Your task to perform on an android device: turn off location Image 0: 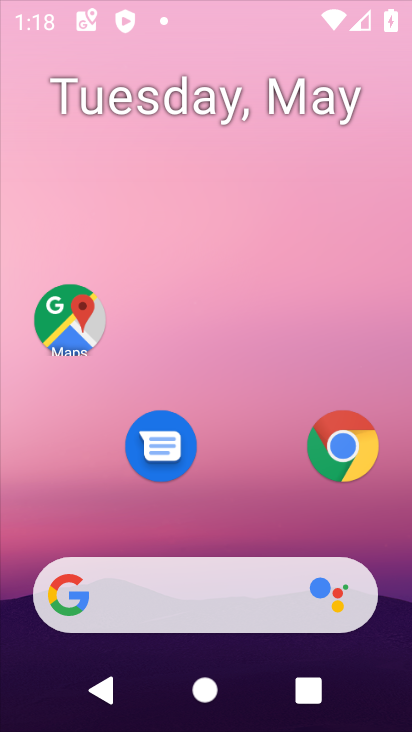
Step 0: drag from (208, 557) to (209, 62)
Your task to perform on an android device: turn off location Image 1: 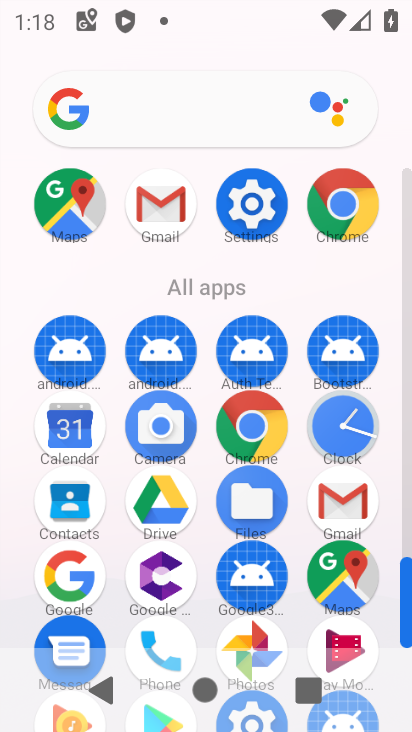
Step 1: click (250, 189)
Your task to perform on an android device: turn off location Image 2: 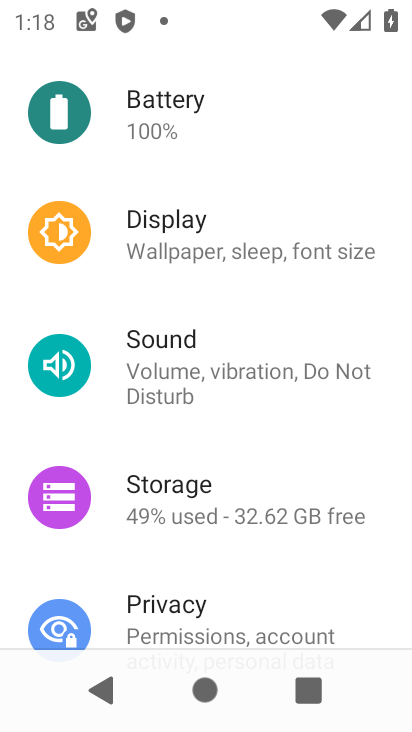
Step 2: drag from (178, 582) to (157, 119)
Your task to perform on an android device: turn off location Image 3: 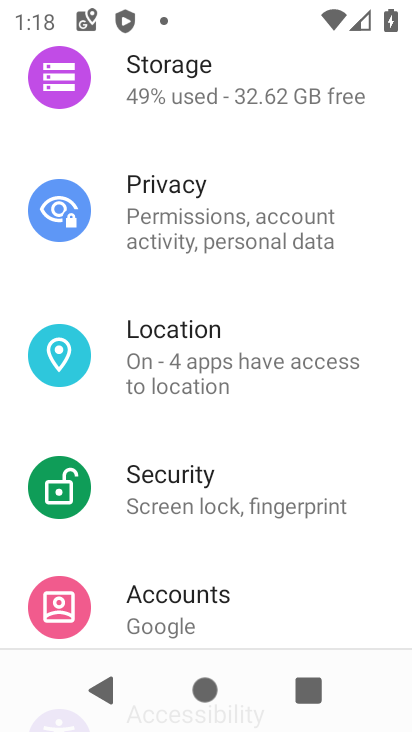
Step 3: click (198, 396)
Your task to perform on an android device: turn off location Image 4: 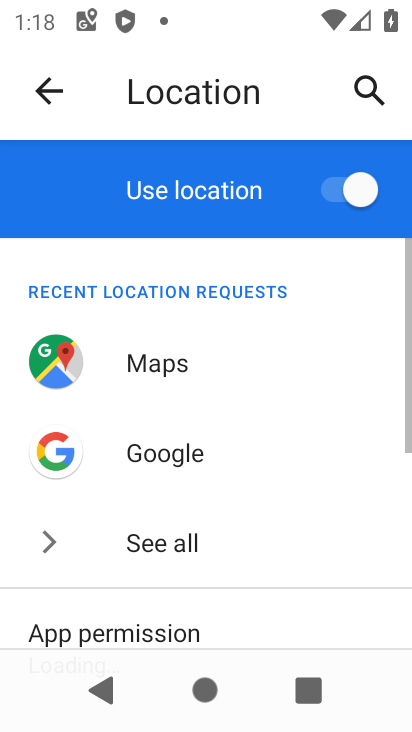
Step 4: click (326, 197)
Your task to perform on an android device: turn off location Image 5: 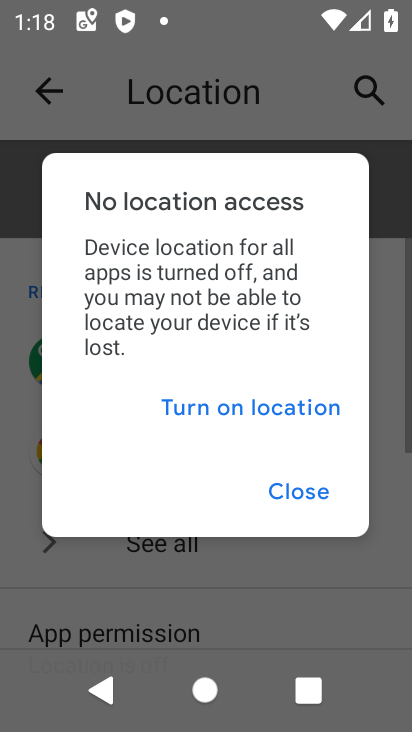
Step 5: task complete